Your task to perform on an android device: Open Maps and search for coffee Image 0: 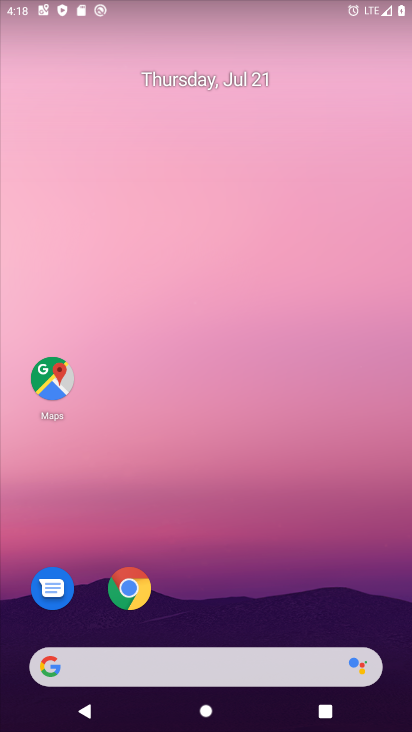
Step 0: drag from (281, 559) to (231, 15)
Your task to perform on an android device: Open Maps and search for coffee Image 1: 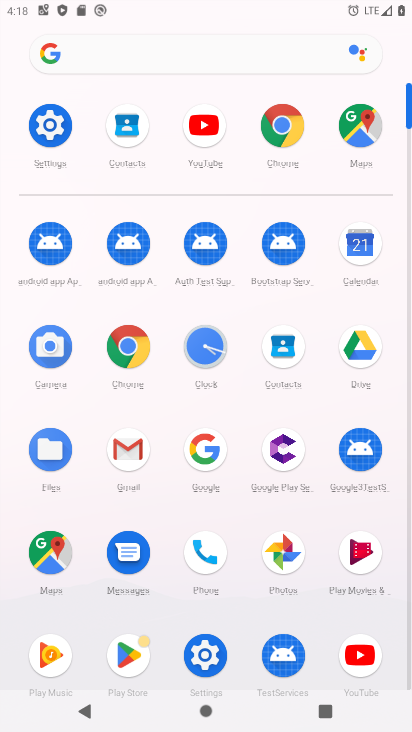
Step 1: click (358, 131)
Your task to perform on an android device: Open Maps and search for coffee Image 2: 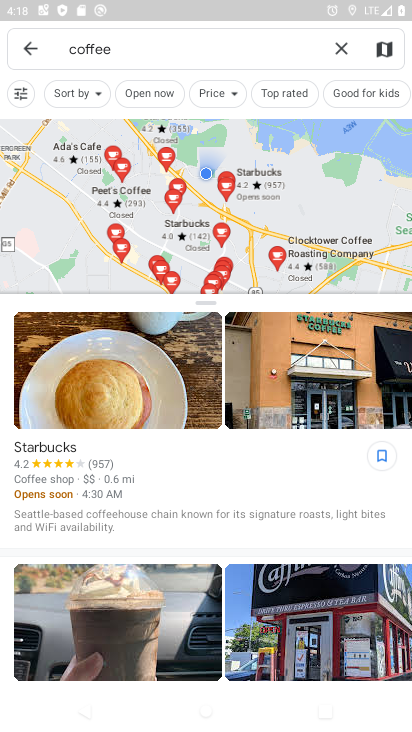
Step 2: task complete